Your task to perform on an android device: Play the last video I watched on Youtube Image 0: 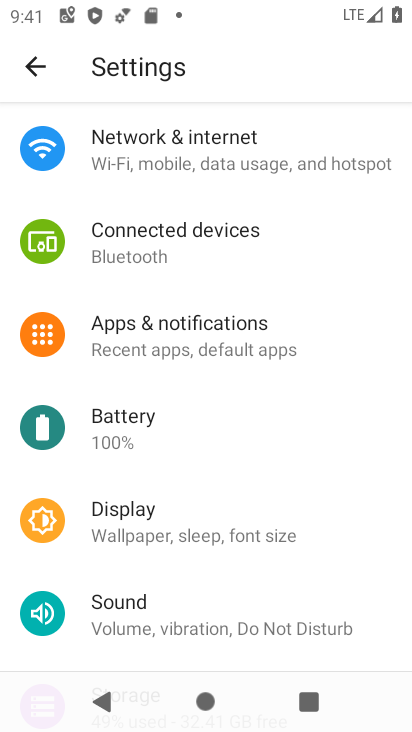
Step 0: press home button
Your task to perform on an android device: Play the last video I watched on Youtube Image 1: 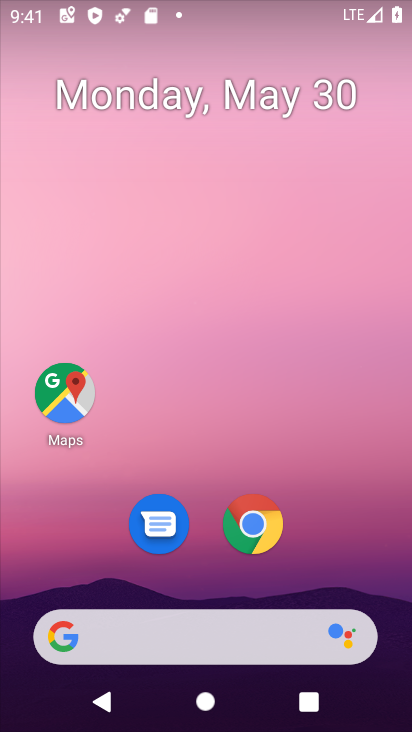
Step 1: drag from (205, 450) to (254, 23)
Your task to perform on an android device: Play the last video I watched on Youtube Image 2: 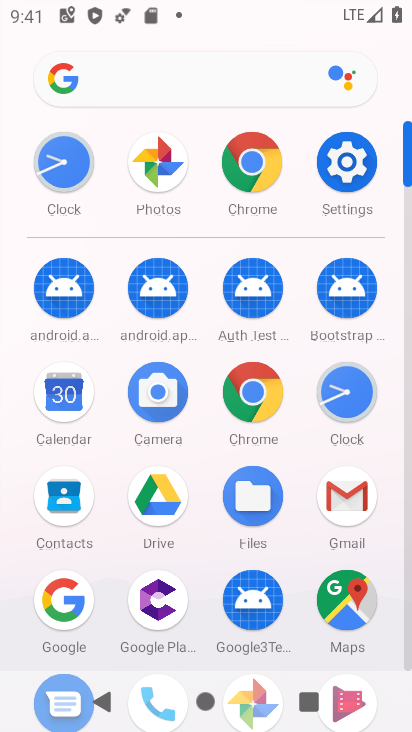
Step 2: drag from (204, 433) to (212, 59)
Your task to perform on an android device: Play the last video I watched on Youtube Image 3: 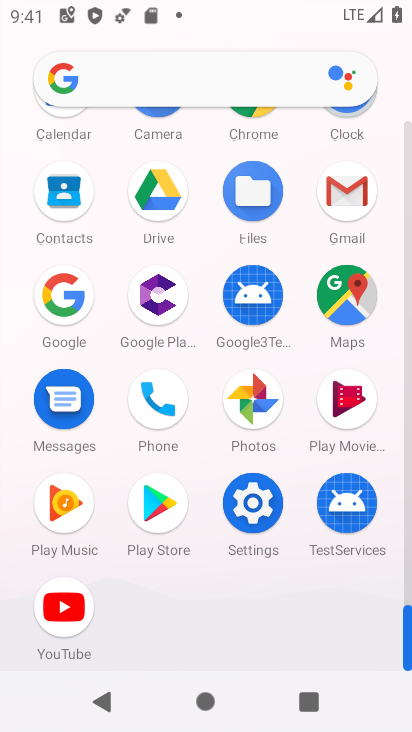
Step 3: click (74, 591)
Your task to perform on an android device: Play the last video I watched on Youtube Image 4: 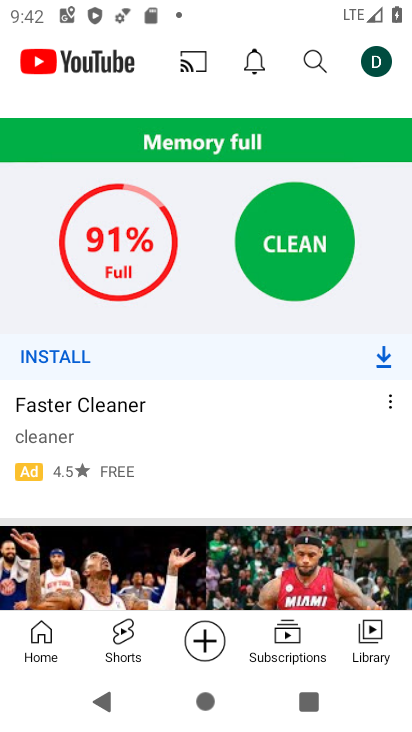
Step 4: click (375, 645)
Your task to perform on an android device: Play the last video I watched on Youtube Image 5: 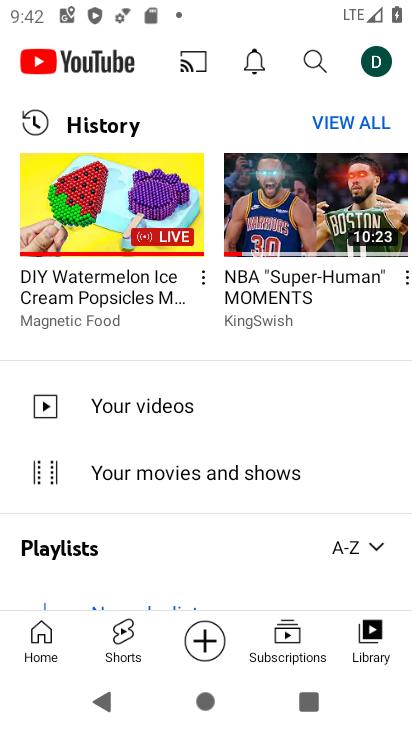
Step 5: click (114, 266)
Your task to perform on an android device: Play the last video I watched on Youtube Image 6: 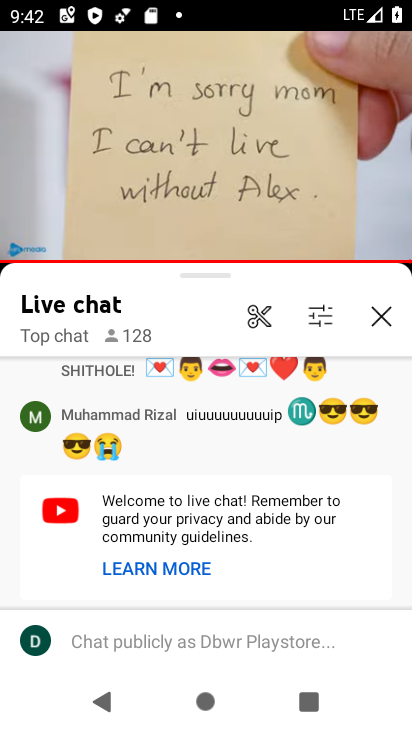
Step 6: task complete